Your task to perform on an android device: Turn on the flashlight Image 0: 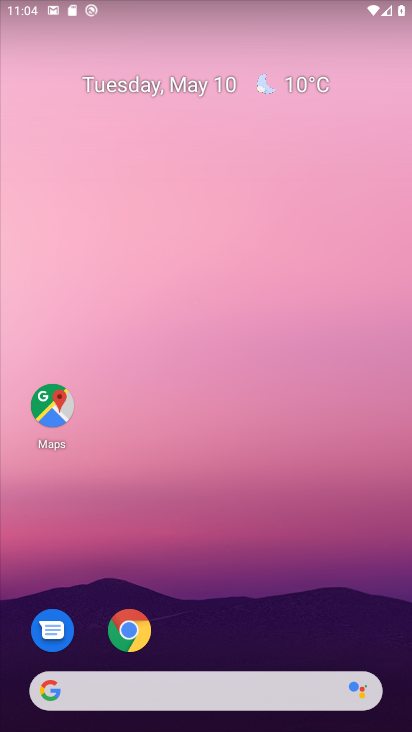
Step 0: drag from (236, 613) to (257, 21)
Your task to perform on an android device: Turn on the flashlight Image 1: 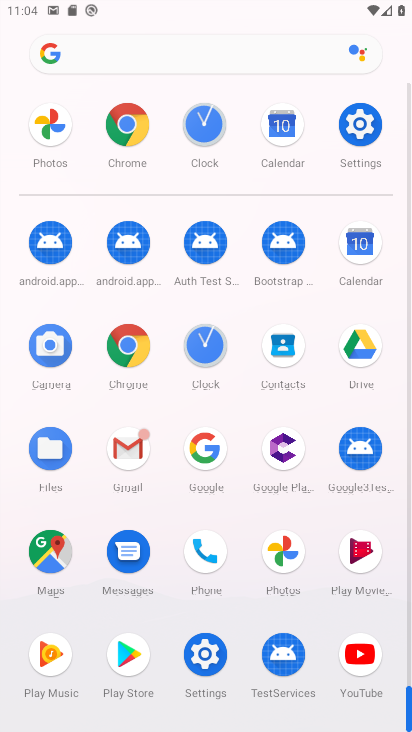
Step 1: click (356, 130)
Your task to perform on an android device: Turn on the flashlight Image 2: 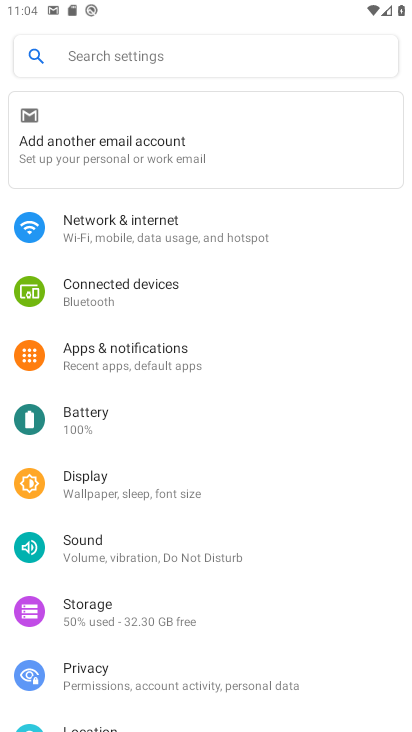
Step 2: click (112, 351)
Your task to perform on an android device: Turn on the flashlight Image 3: 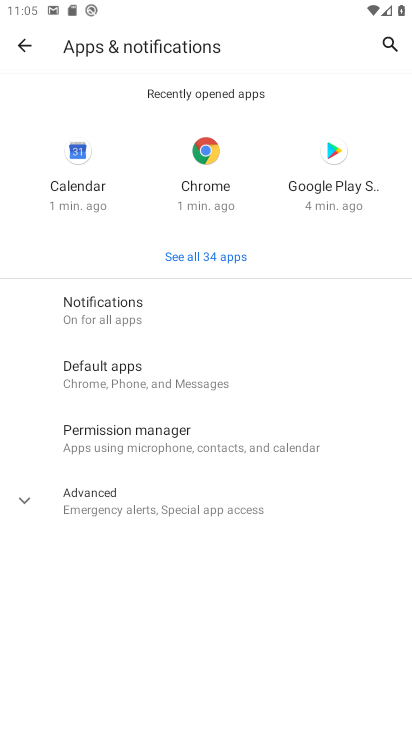
Step 3: click (241, 505)
Your task to perform on an android device: Turn on the flashlight Image 4: 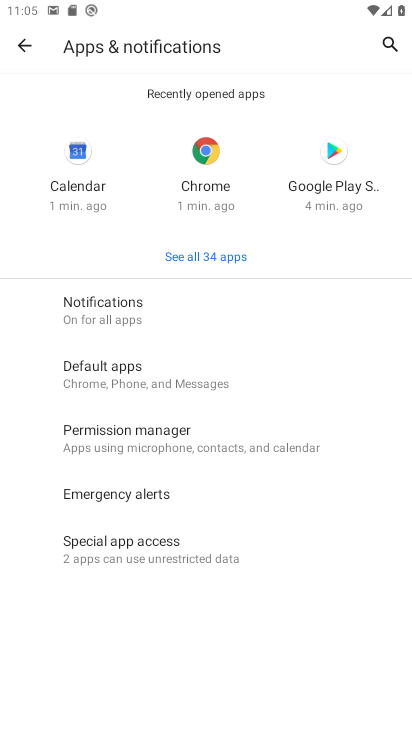
Step 4: task complete